Your task to perform on an android device: Clear all items from cart on bestbuy.com. Add logitech g502 to the cart on bestbuy.com Image 0: 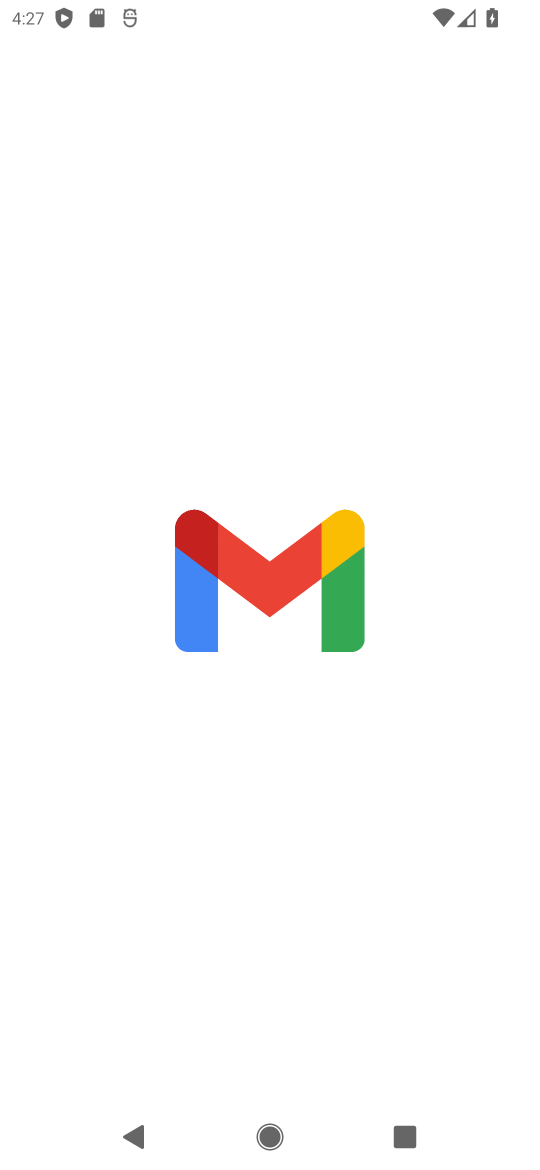
Step 0: press home button
Your task to perform on an android device: Clear all items from cart on bestbuy.com. Add logitech g502 to the cart on bestbuy.com Image 1: 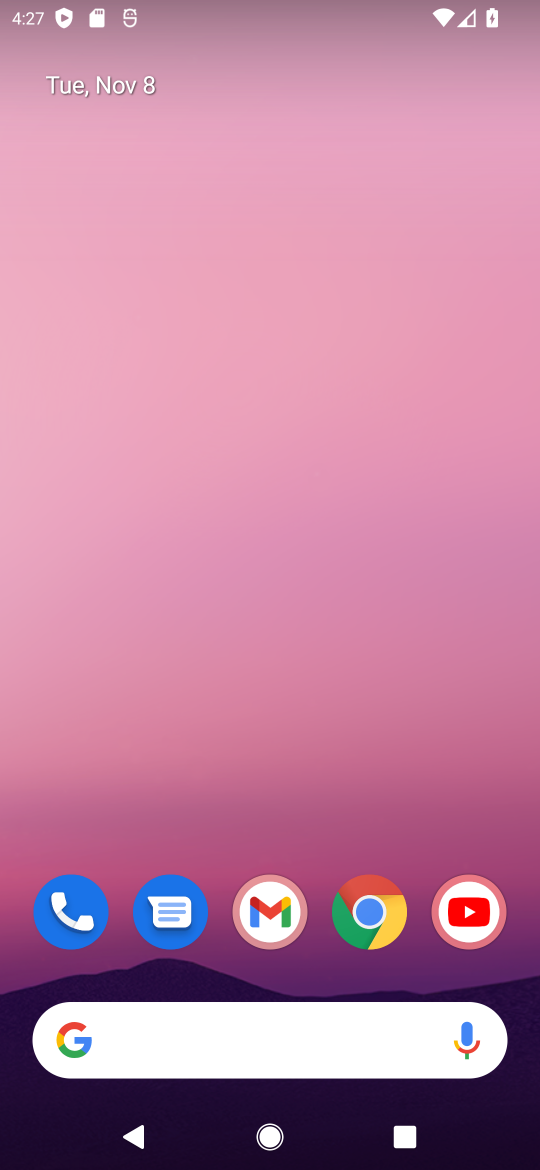
Step 1: click (385, 902)
Your task to perform on an android device: Clear all items from cart on bestbuy.com. Add logitech g502 to the cart on bestbuy.com Image 2: 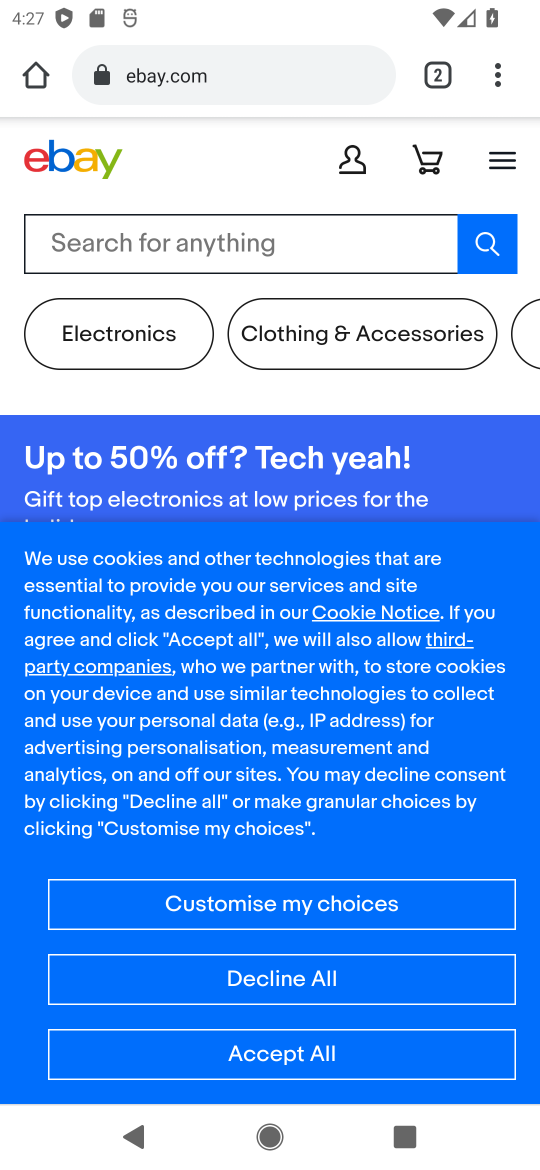
Step 2: click (431, 84)
Your task to perform on an android device: Clear all items from cart on bestbuy.com. Add logitech g502 to the cart on bestbuy.com Image 3: 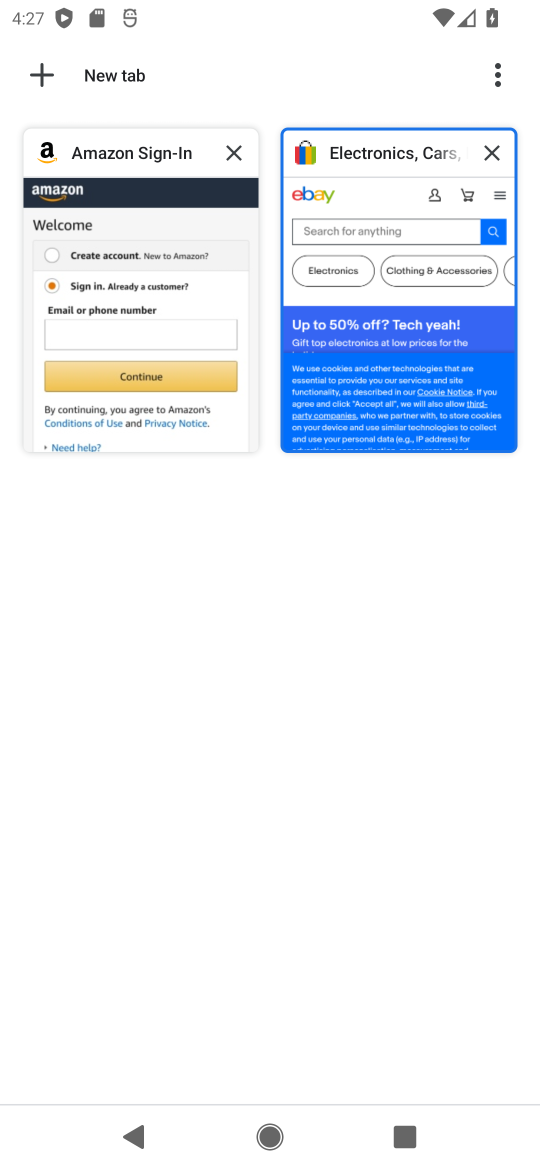
Step 3: click (40, 84)
Your task to perform on an android device: Clear all items from cart on bestbuy.com. Add logitech g502 to the cart on bestbuy.com Image 4: 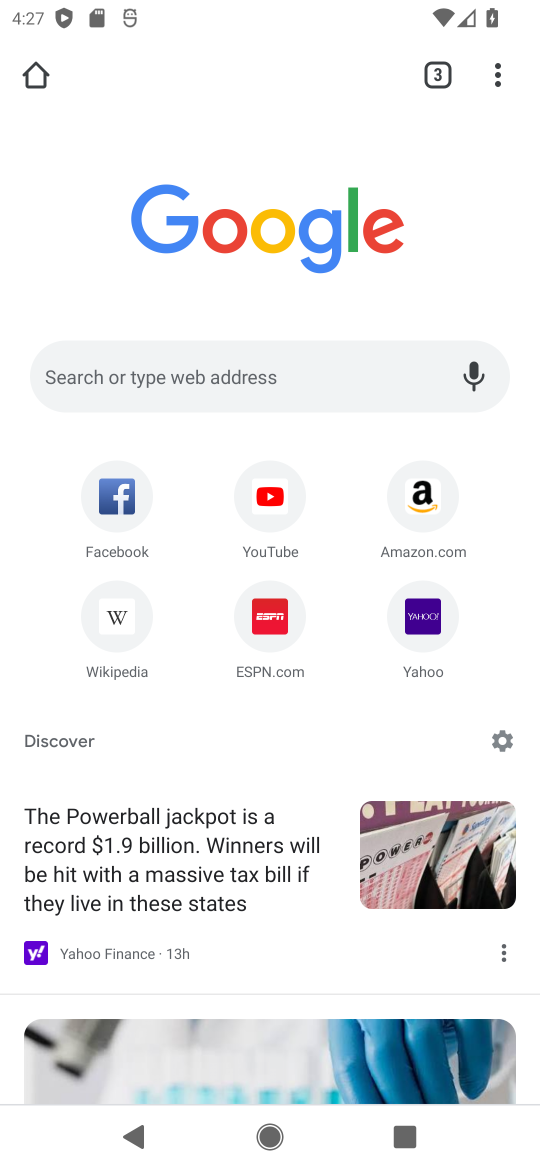
Step 4: click (212, 374)
Your task to perform on an android device: Clear all items from cart on bestbuy.com. Add logitech g502 to the cart on bestbuy.com Image 5: 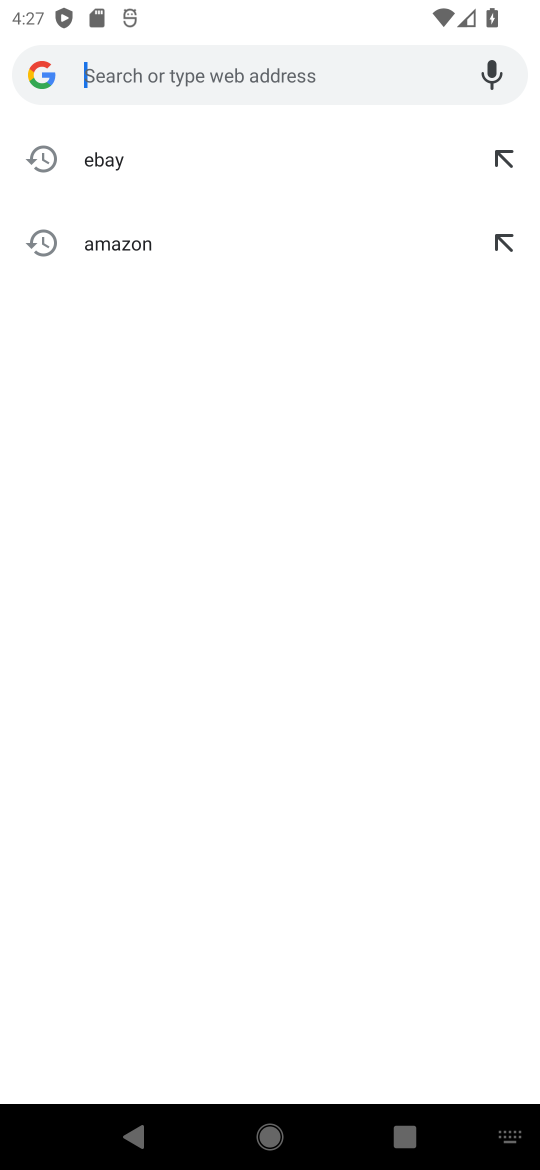
Step 5: type "bestbuy"
Your task to perform on an android device: Clear all items from cart on bestbuy.com. Add logitech g502 to the cart on bestbuy.com Image 6: 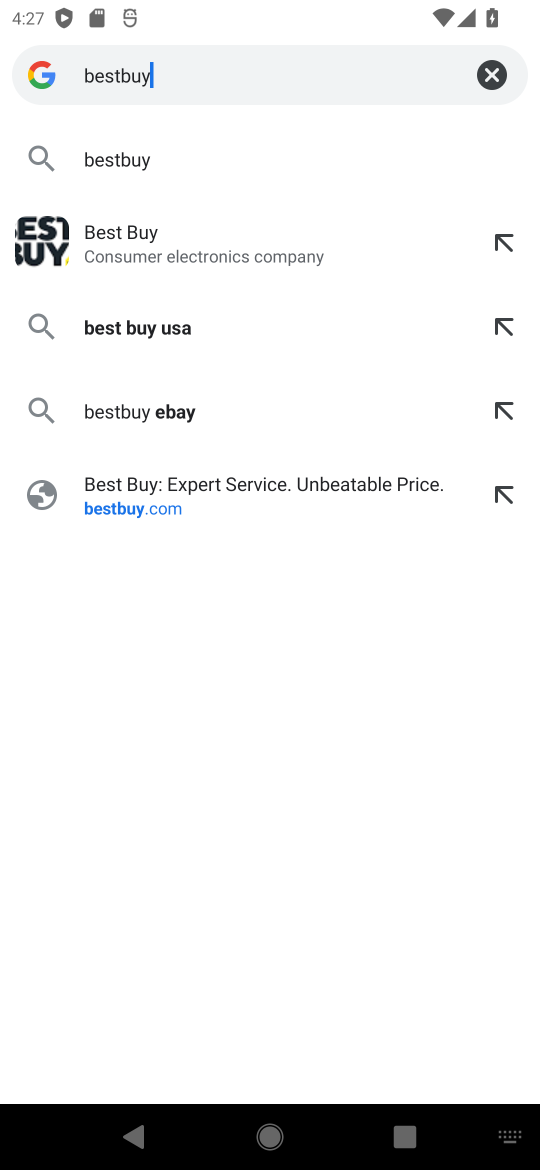
Step 6: click (136, 159)
Your task to perform on an android device: Clear all items from cart on bestbuy.com. Add logitech g502 to the cart on bestbuy.com Image 7: 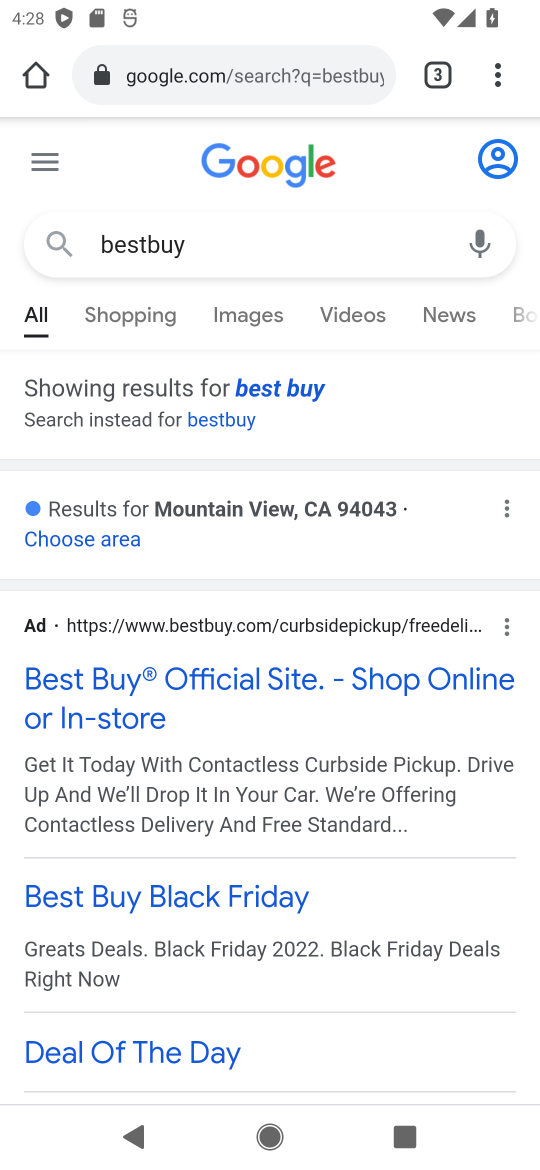
Step 7: drag from (222, 968) to (360, 46)
Your task to perform on an android device: Clear all items from cart on bestbuy.com. Add logitech g502 to the cart on bestbuy.com Image 8: 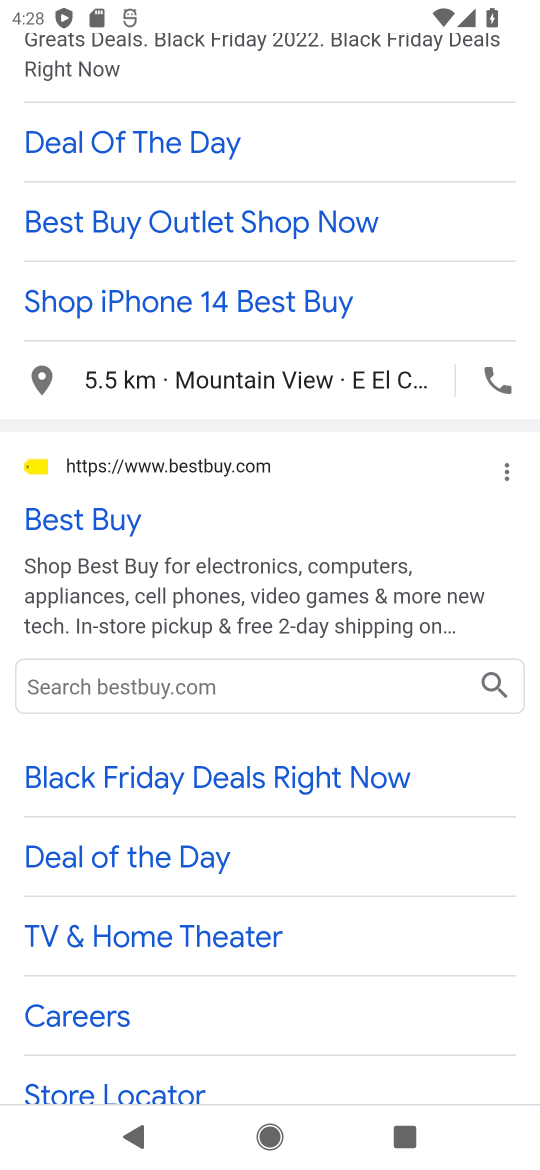
Step 8: click (92, 673)
Your task to perform on an android device: Clear all items from cart on bestbuy.com. Add logitech g502 to the cart on bestbuy.com Image 9: 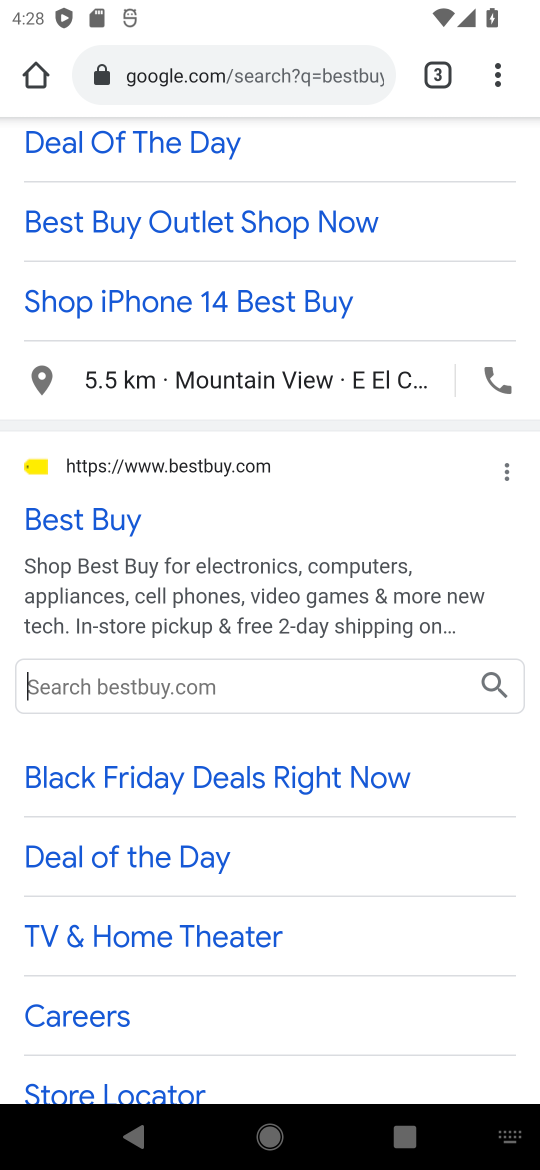
Step 9: type "logitech g502"
Your task to perform on an android device: Clear all items from cart on bestbuy.com. Add logitech g502 to the cart on bestbuy.com Image 10: 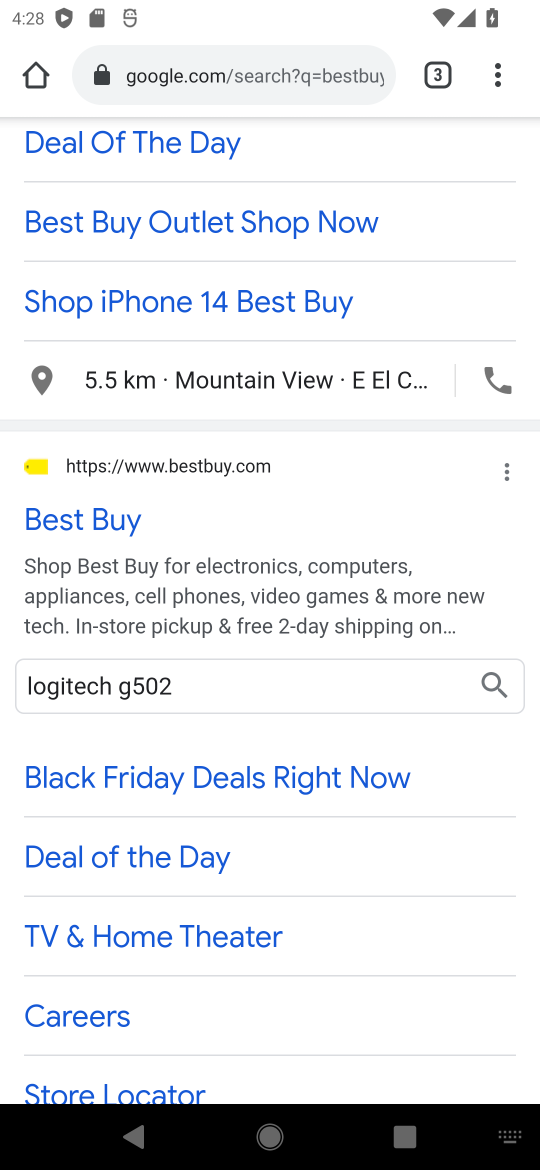
Step 10: click (493, 679)
Your task to perform on an android device: Clear all items from cart on bestbuy.com. Add logitech g502 to the cart on bestbuy.com Image 11: 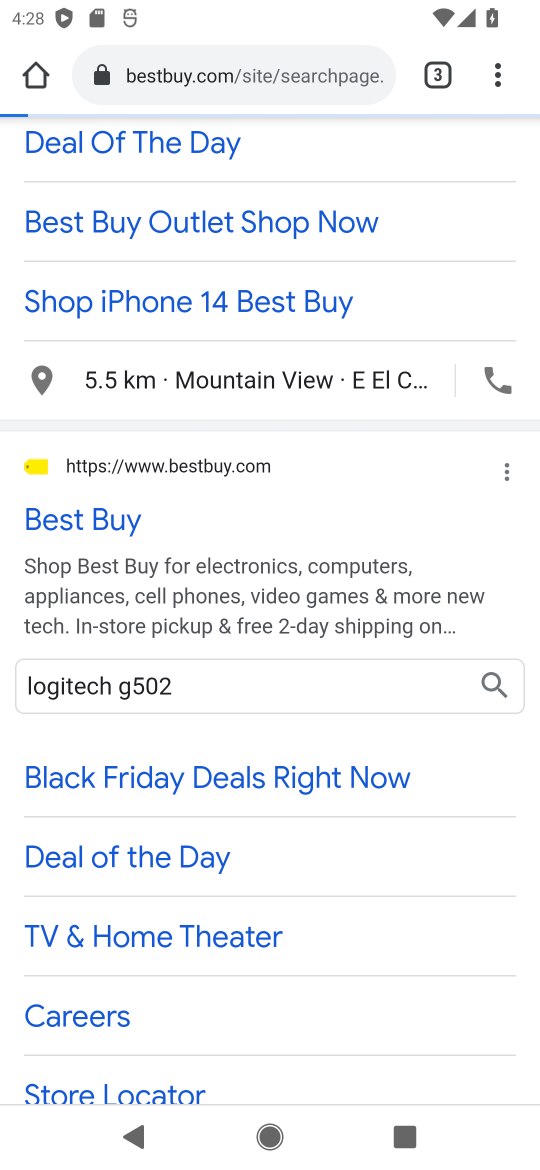
Step 11: click (488, 678)
Your task to perform on an android device: Clear all items from cart on bestbuy.com. Add logitech g502 to the cart on bestbuy.com Image 12: 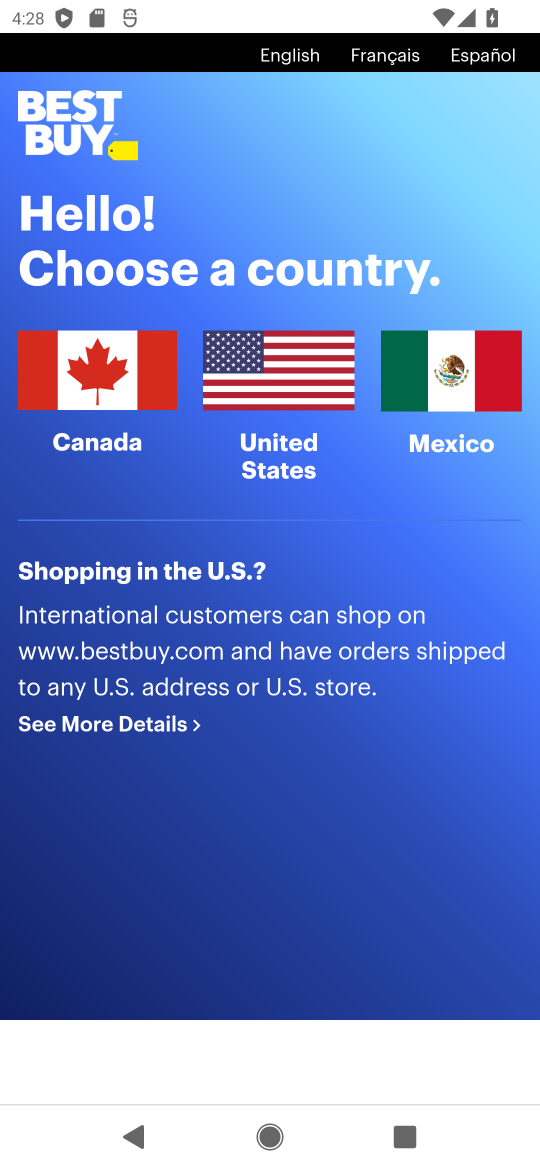
Step 12: click (302, 363)
Your task to perform on an android device: Clear all items from cart on bestbuy.com. Add logitech g502 to the cart on bestbuy.com Image 13: 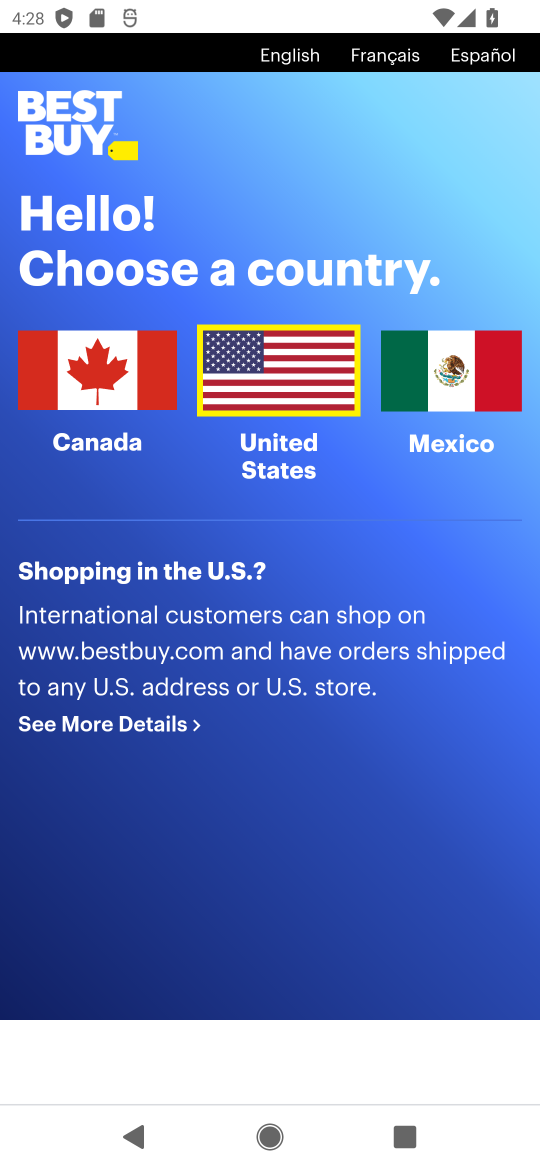
Step 13: click (302, 363)
Your task to perform on an android device: Clear all items from cart on bestbuy.com. Add logitech g502 to the cart on bestbuy.com Image 14: 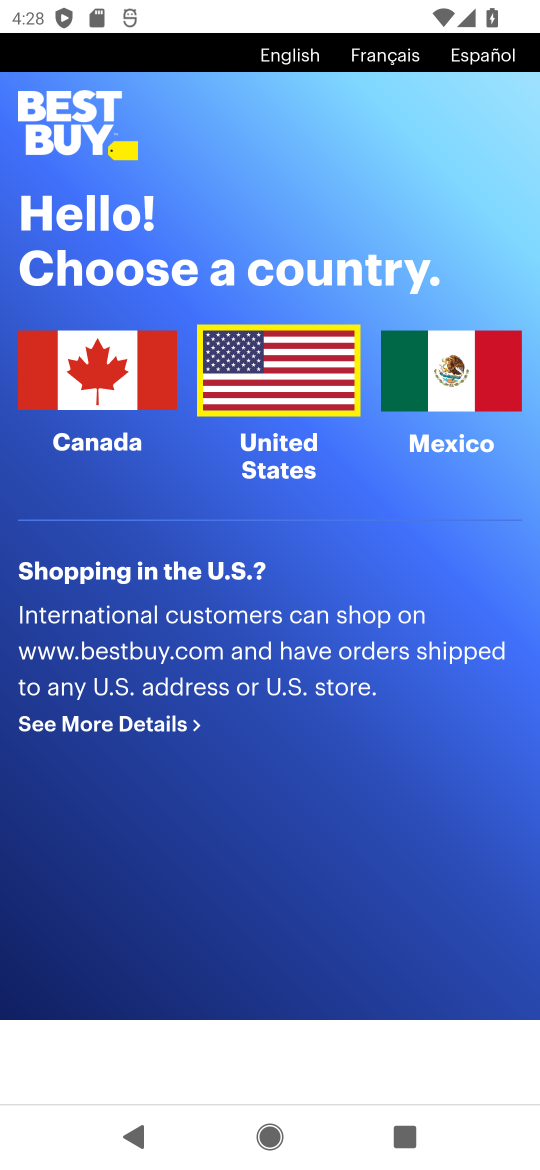
Step 14: click (302, 363)
Your task to perform on an android device: Clear all items from cart on bestbuy.com. Add logitech g502 to the cart on bestbuy.com Image 15: 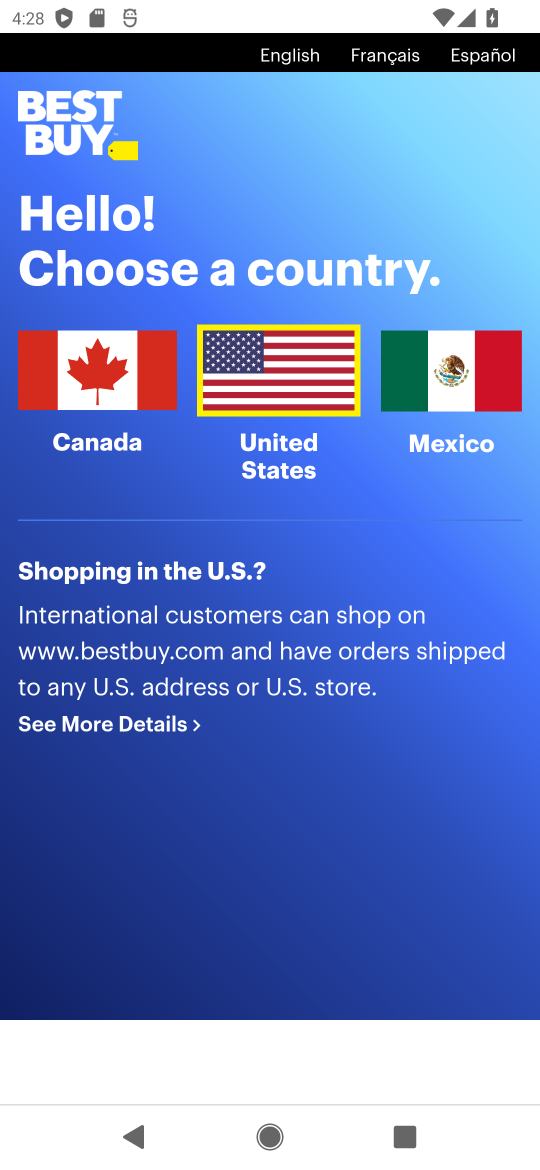
Step 15: click (300, 384)
Your task to perform on an android device: Clear all items from cart on bestbuy.com. Add logitech g502 to the cart on bestbuy.com Image 16: 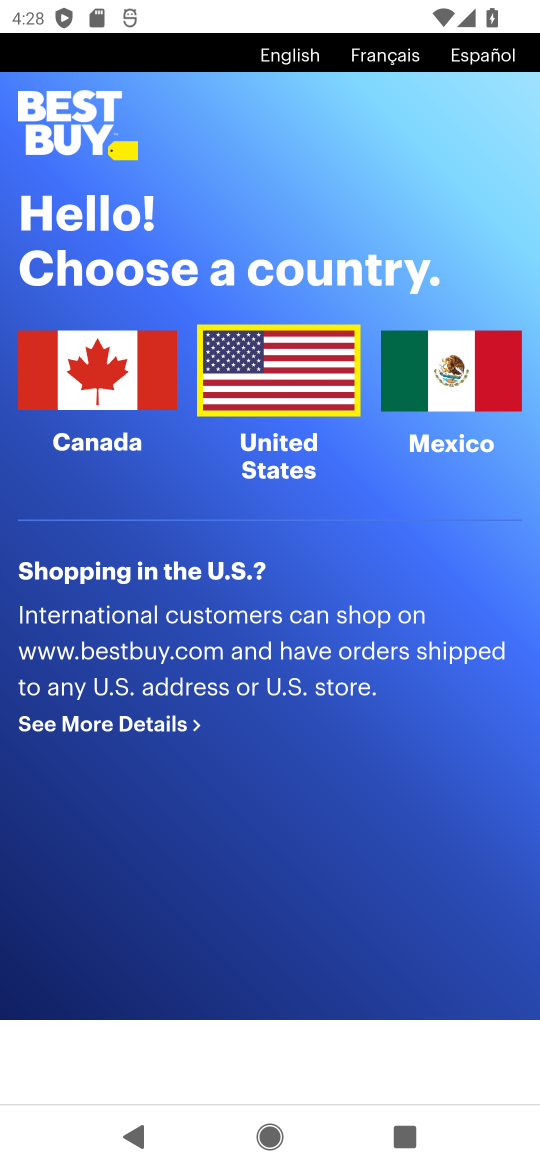
Step 16: click (300, 384)
Your task to perform on an android device: Clear all items from cart on bestbuy.com. Add logitech g502 to the cart on bestbuy.com Image 17: 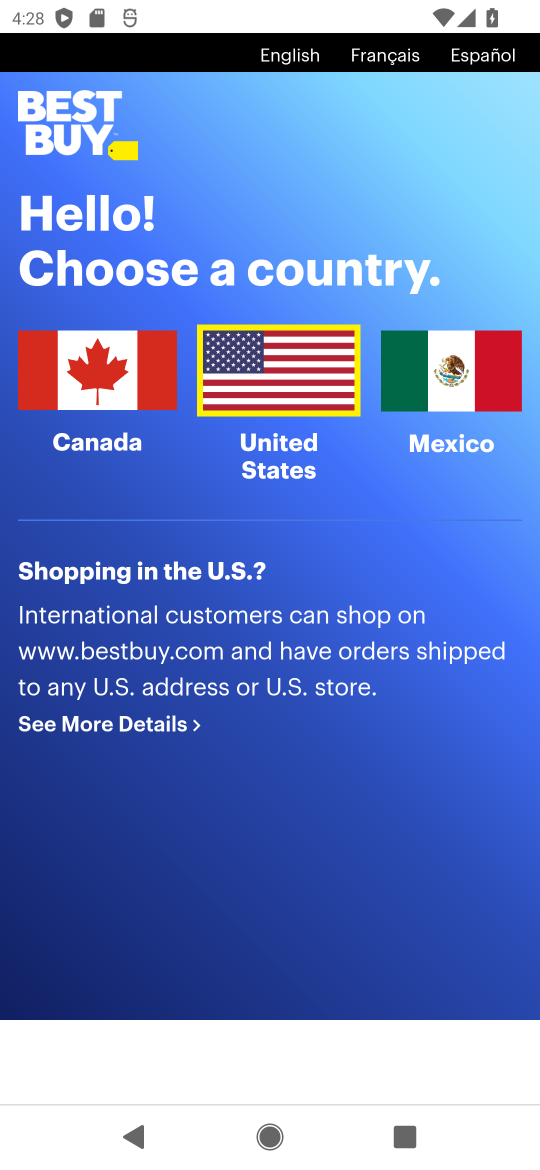
Step 17: click (300, 384)
Your task to perform on an android device: Clear all items from cart on bestbuy.com. Add logitech g502 to the cart on bestbuy.com Image 18: 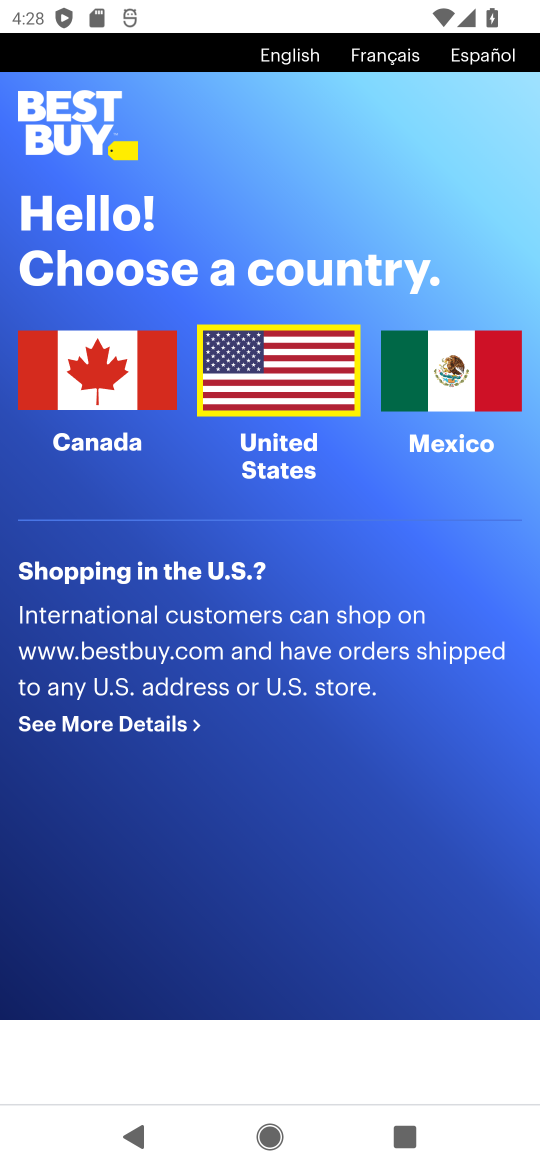
Step 18: click (439, 393)
Your task to perform on an android device: Clear all items from cart on bestbuy.com. Add logitech g502 to the cart on bestbuy.com Image 19: 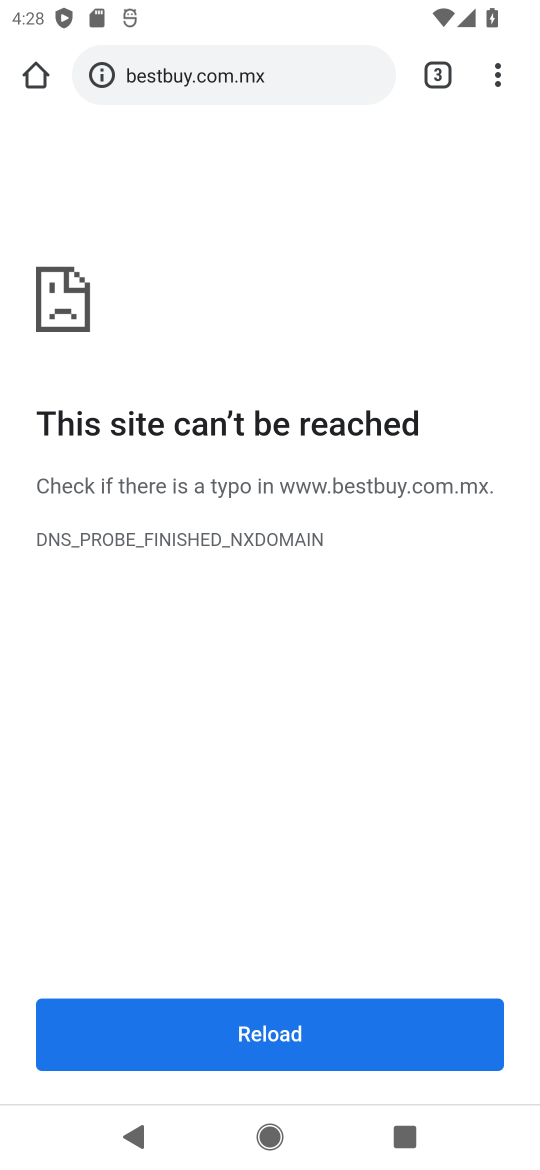
Step 19: click (310, 386)
Your task to perform on an android device: Clear all items from cart on bestbuy.com. Add logitech g502 to the cart on bestbuy.com Image 20: 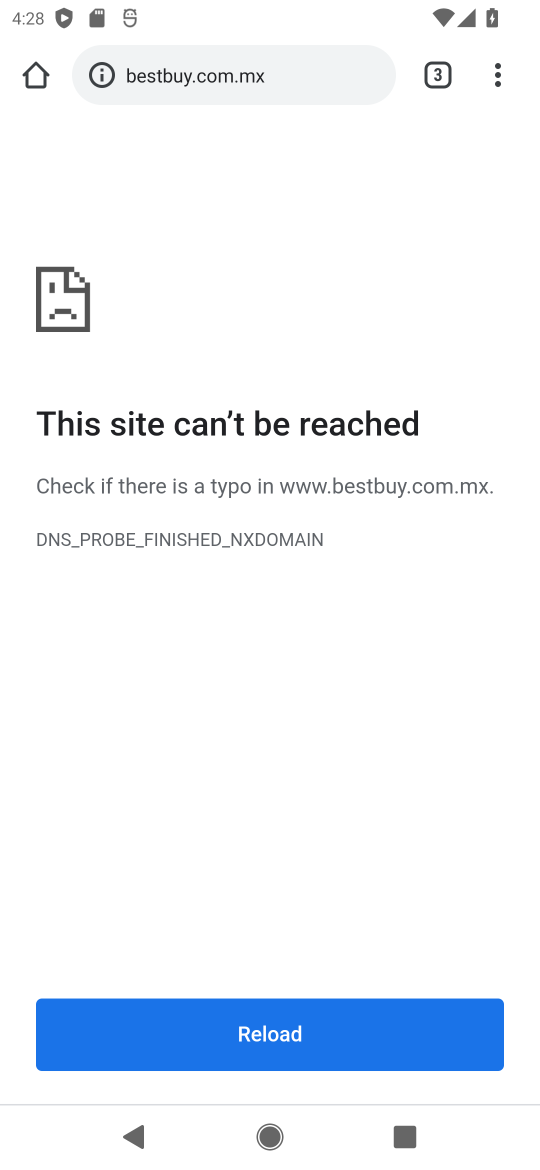
Step 20: press back button
Your task to perform on an android device: Clear all items from cart on bestbuy.com. Add logitech g502 to the cart on bestbuy.com Image 21: 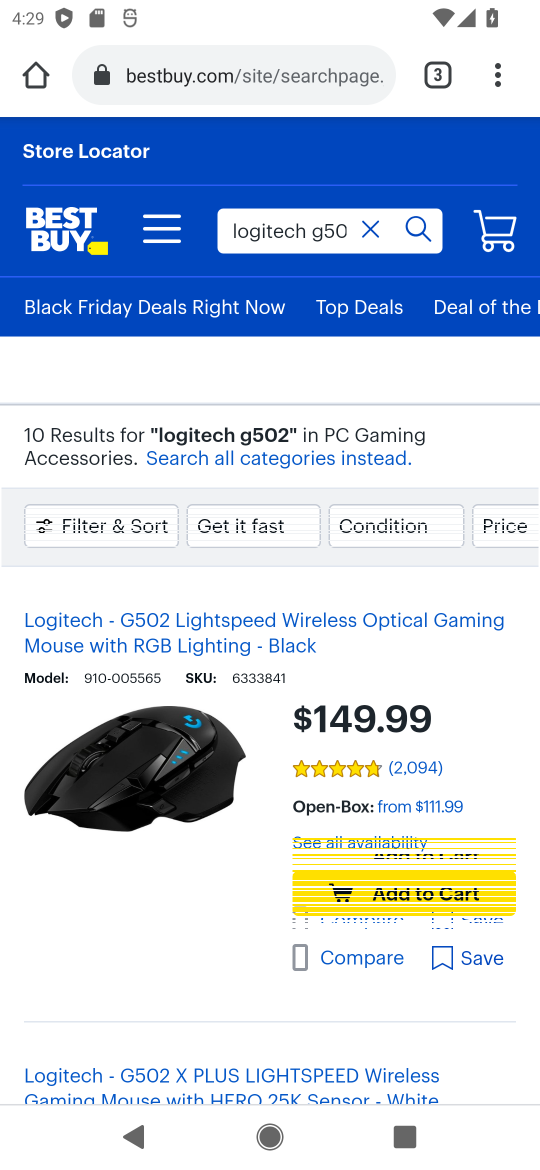
Step 21: click (431, 888)
Your task to perform on an android device: Clear all items from cart on bestbuy.com. Add logitech g502 to the cart on bestbuy.com Image 22: 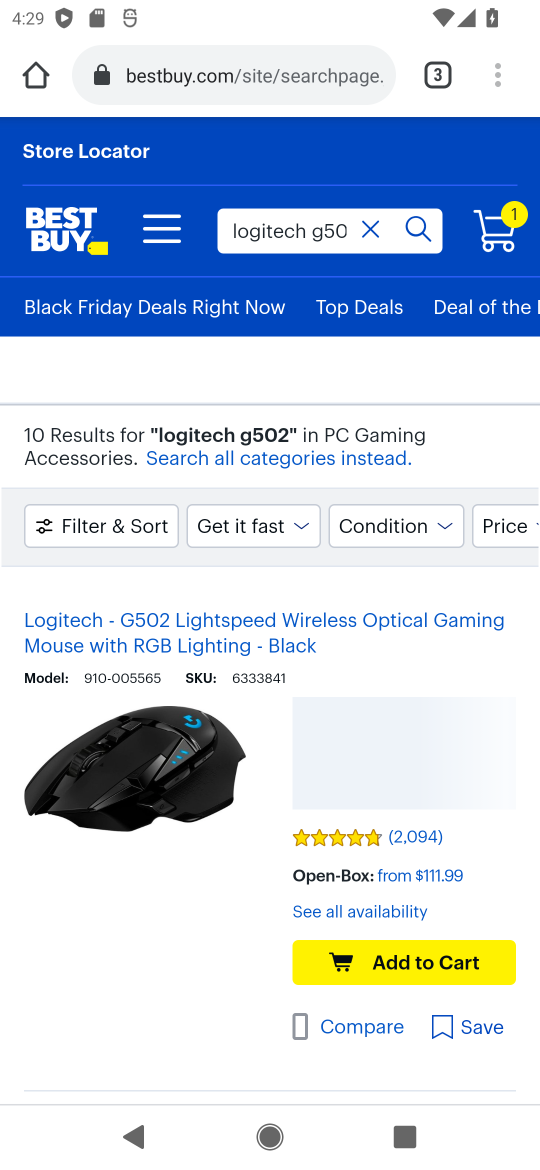
Step 22: task complete